Your task to perform on an android device: Open CNN.com Image 0: 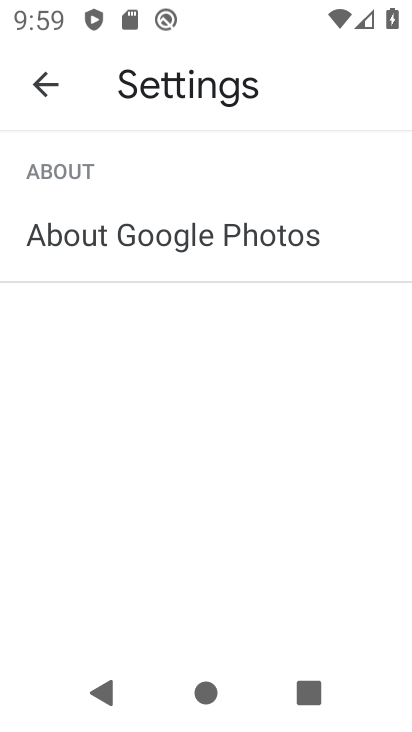
Step 0: press home button
Your task to perform on an android device: Open CNN.com Image 1: 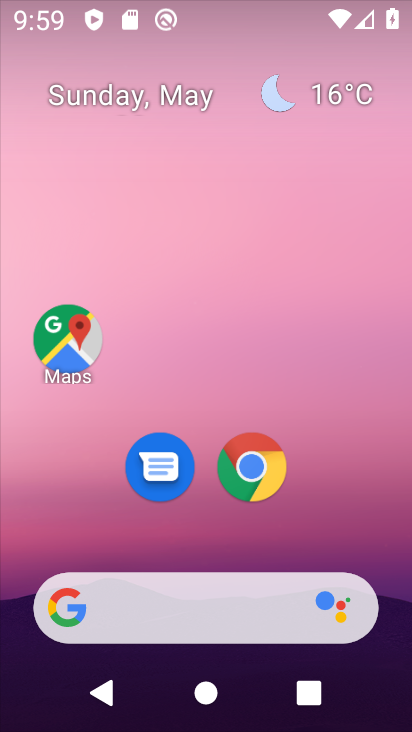
Step 1: drag from (362, 520) to (363, 143)
Your task to perform on an android device: Open CNN.com Image 2: 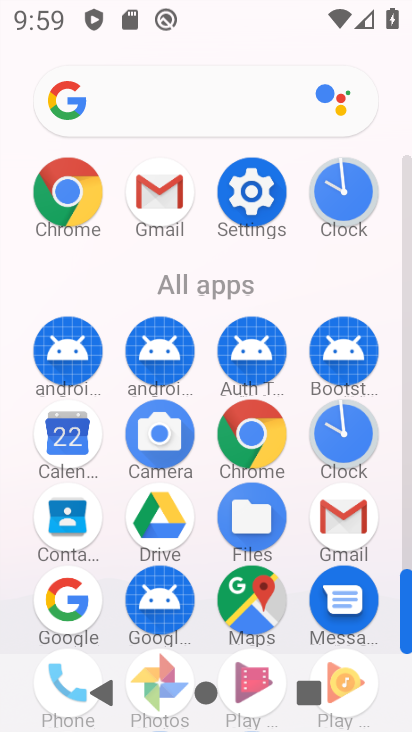
Step 2: click (270, 435)
Your task to perform on an android device: Open CNN.com Image 3: 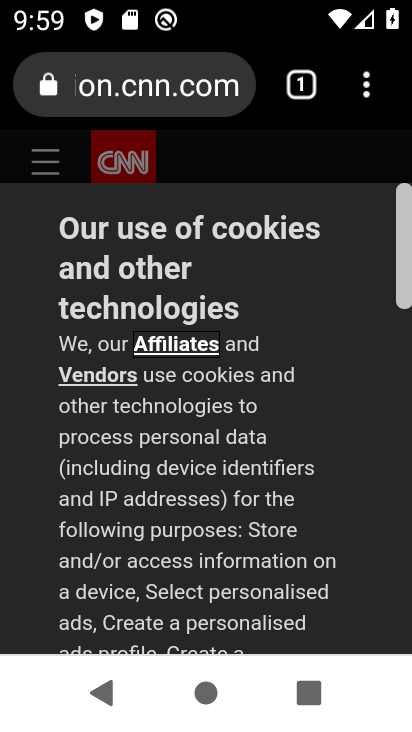
Step 3: click (290, 102)
Your task to perform on an android device: Open CNN.com Image 4: 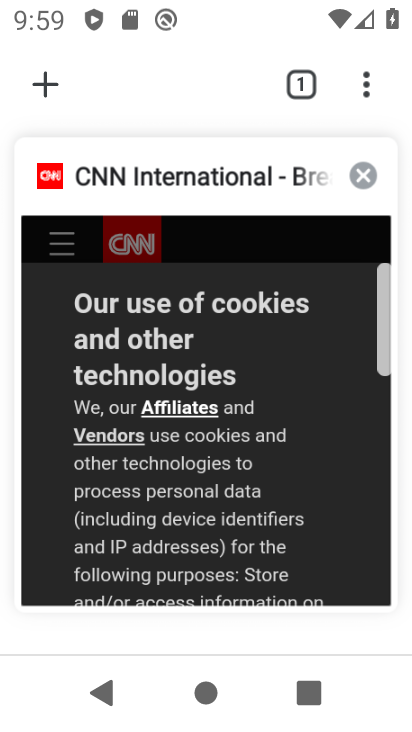
Step 4: click (48, 76)
Your task to perform on an android device: Open CNN.com Image 5: 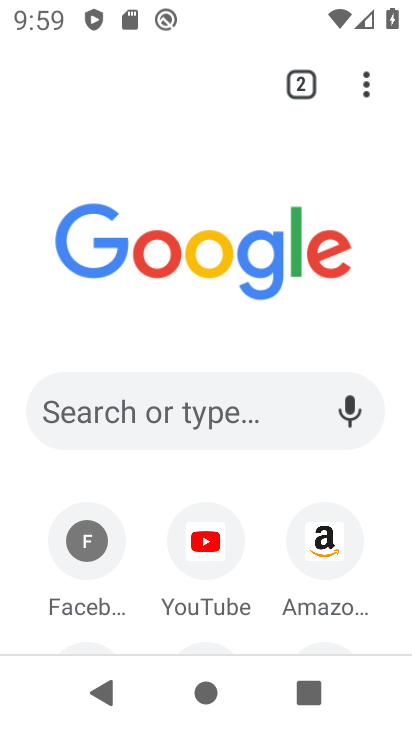
Step 5: click (188, 415)
Your task to perform on an android device: Open CNN.com Image 6: 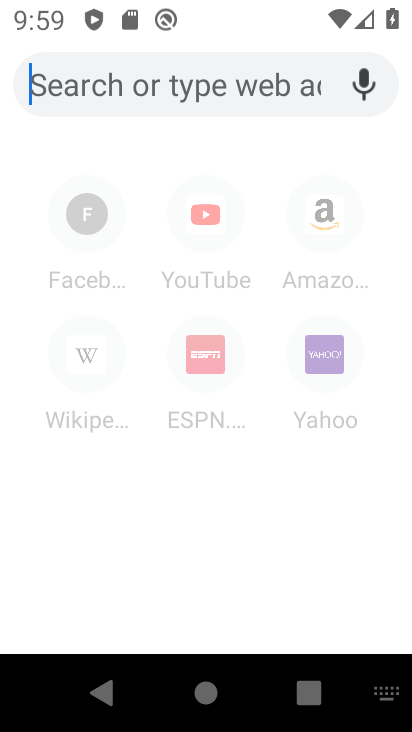
Step 6: type "cnn.com"
Your task to perform on an android device: Open CNN.com Image 7: 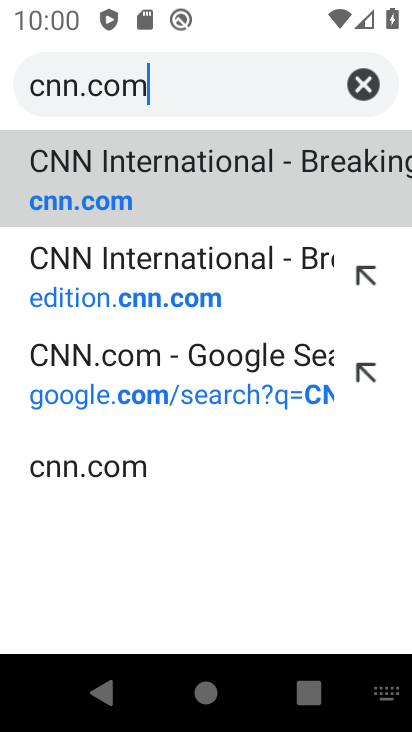
Step 7: click (144, 177)
Your task to perform on an android device: Open CNN.com Image 8: 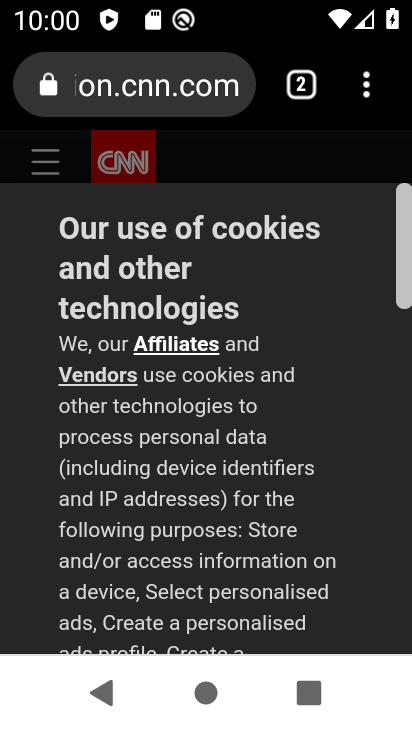
Step 8: task complete